Your task to perform on an android device: Search for pizza restaurants on Maps Image 0: 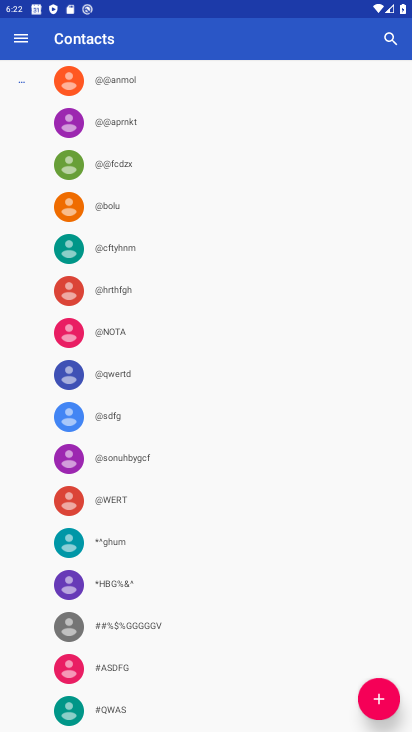
Step 0: press home button
Your task to perform on an android device: Search for pizza restaurants on Maps Image 1: 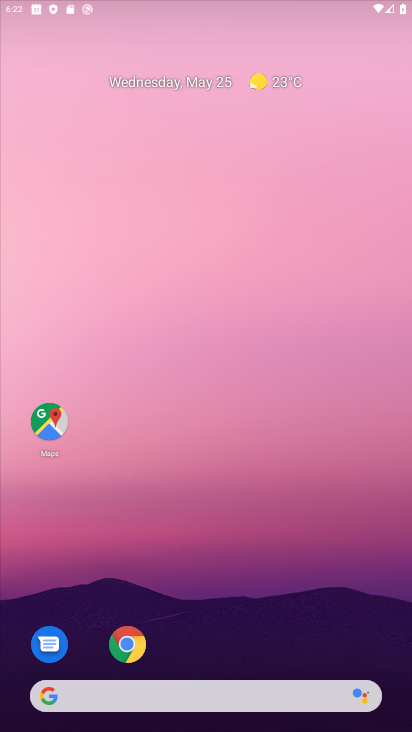
Step 1: drag from (377, 644) to (201, 5)
Your task to perform on an android device: Search for pizza restaurants on Maps Image 2: 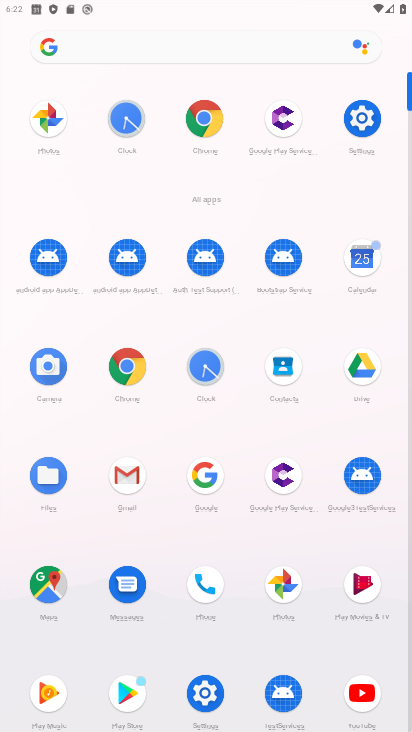
Step 2: click (44, 597)
Your task to perform on an android device: Search for pizza restaurants on Maps Image 3: 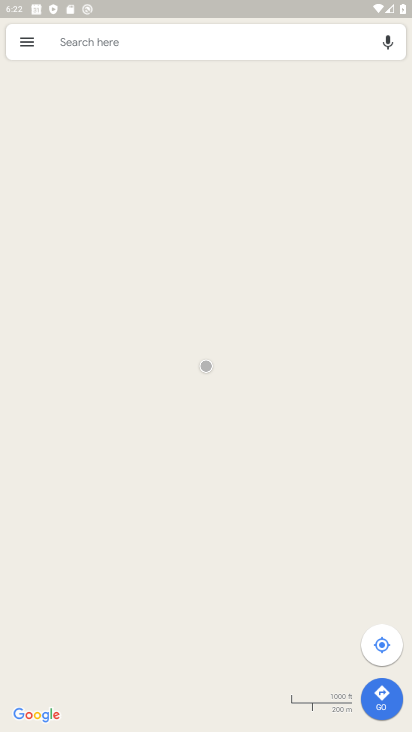
Step 3: click (191, 35)
Your task to perform on an android device: Search for pizza restaurants on Maps Image 4: 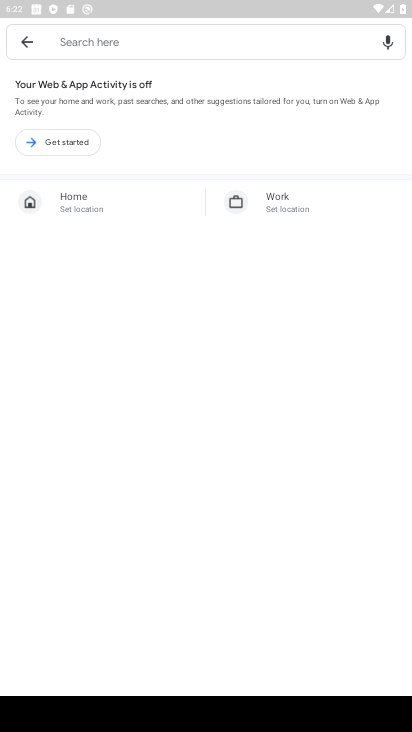
Step 4: click (62, 137)
Your task to perform on an android device: Search for pizza restaurants on Maps Image 5: 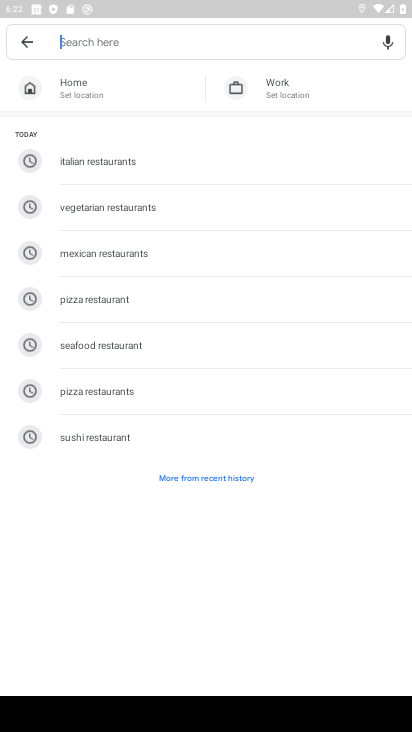
Step 5: click (59, 142)
Your task to perform on an android device: Search for pizza restaurants on Maps Image 6: 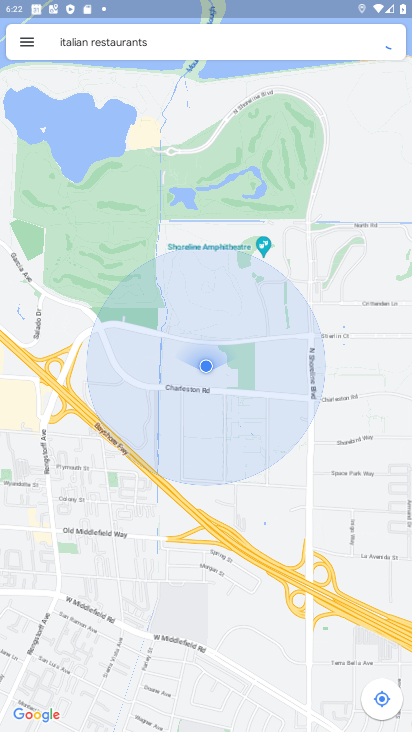
Step 6: press back button
Your task to perform on an android device: Search for pizza restaurants on Maps Image 7: 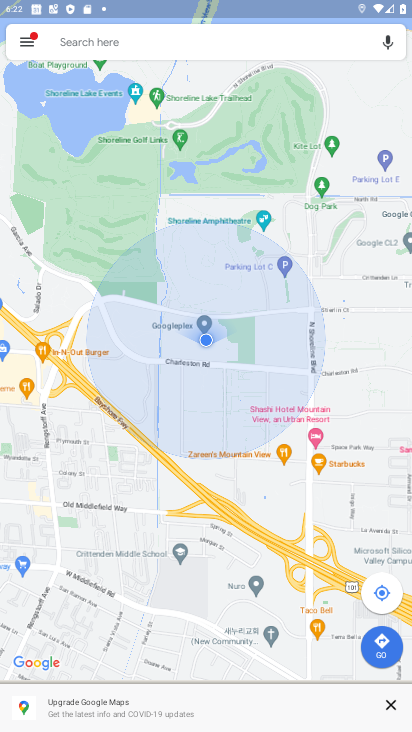
Step 7: click (170, 44)
Your task to perform on an android device: Search for pizza restaurants on Maps Image 8: 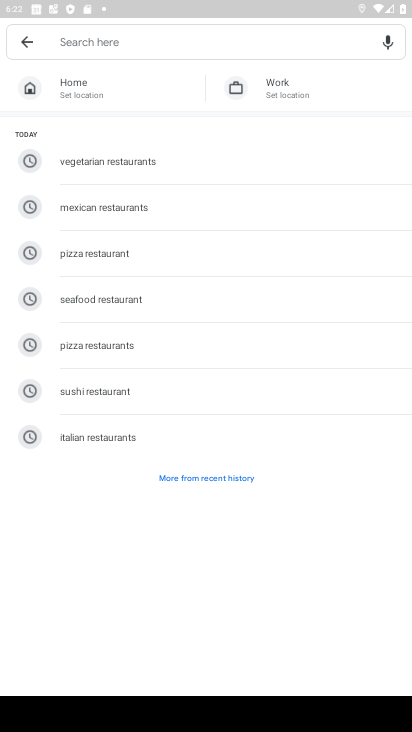
Step 8: click (91, 349)
Your task to perform on an android device: Search for pizza restaurants on Maps Image 9: 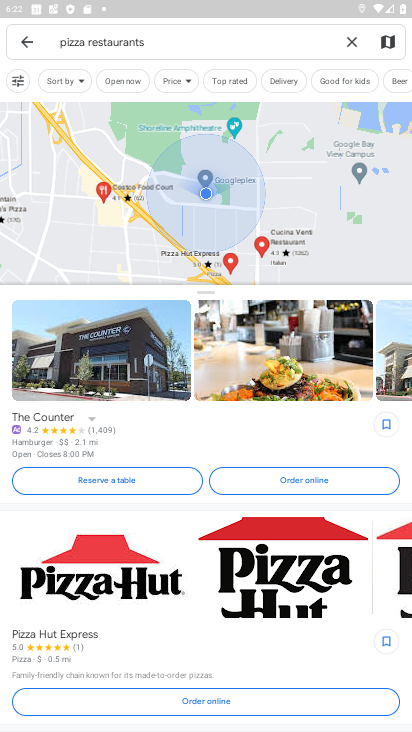
Step 9: task complete